Your task to perform on an android device: set default search engine in the chrome app Image 0: 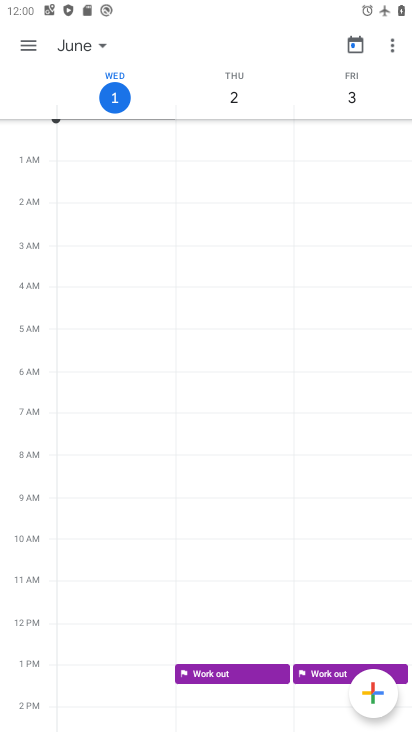
Step 0: press home button
Your task to perform on an android device: set default search engine in the chrome app Image 1: 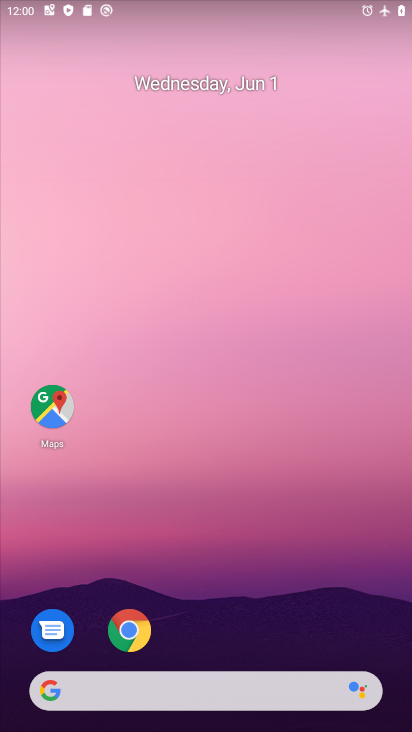
Step 1: click (130, 629)
Your task to perform on an android device: set default search engine in the chrome app Image 2: 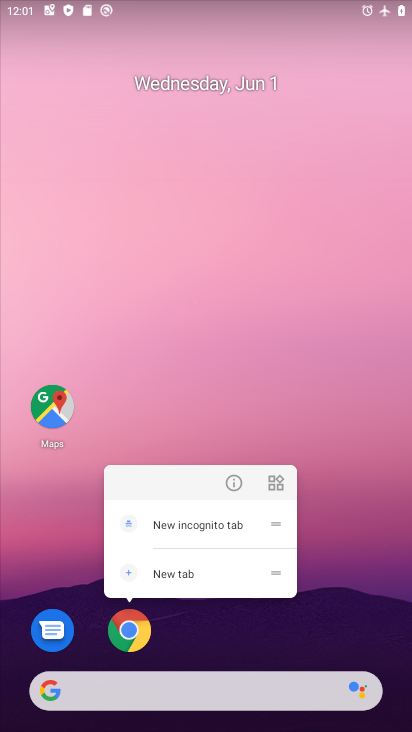
Step 2: click (132, 629)
Your task to perform on an android device: set default search engine in the chrome app Image 3: 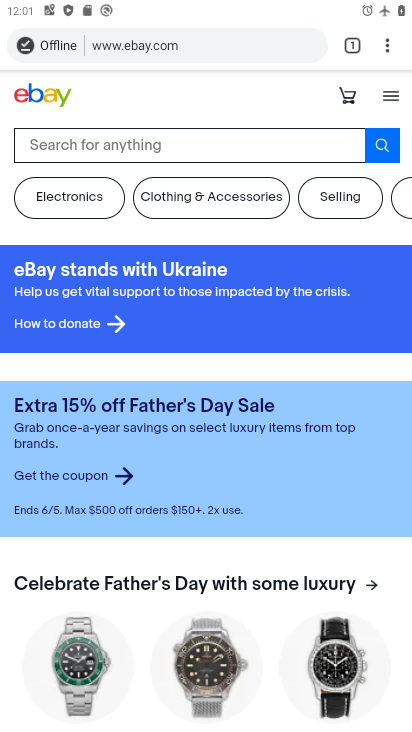
Step 3: click (394, 46)
Your task to perform on an android device: set default search engine in the chrome app Image 4: 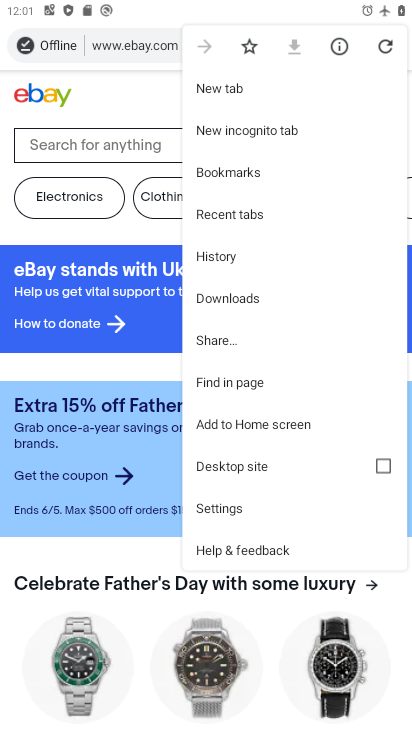
Step 4: click (231, 512)
Your task to perform on an android device: set default search engine in the chrome app Image 5: 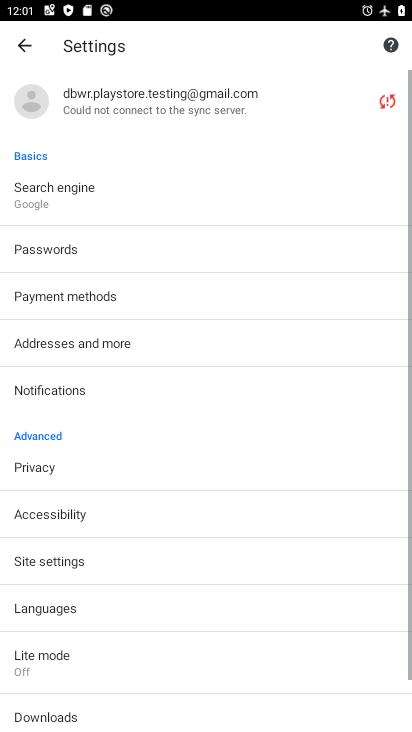
Step 5: click (96, 192)
Your task to perform on an android device: set default search engine in the chrome app Image 6: 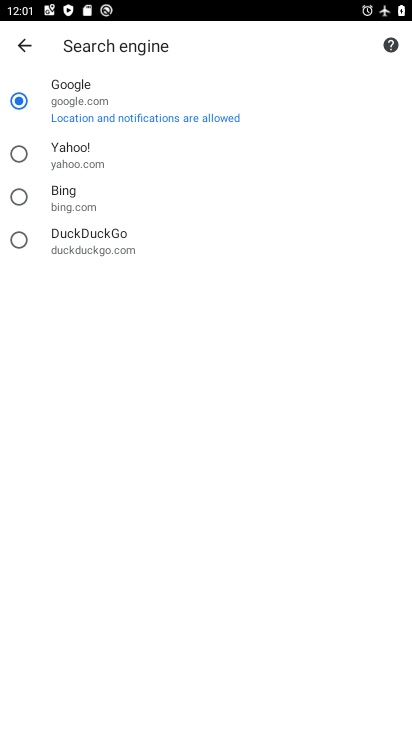
Step 6: click (89, 168)
Your task to perform on an android device: set default search engine in the chrome app Image 7: 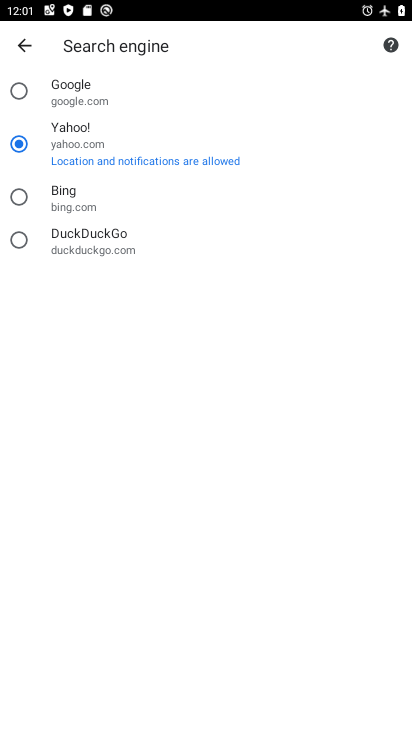
Step 7: task complete